Your task to perform on an android device: Open Youtube and go to the subscriptions tab Image 0: 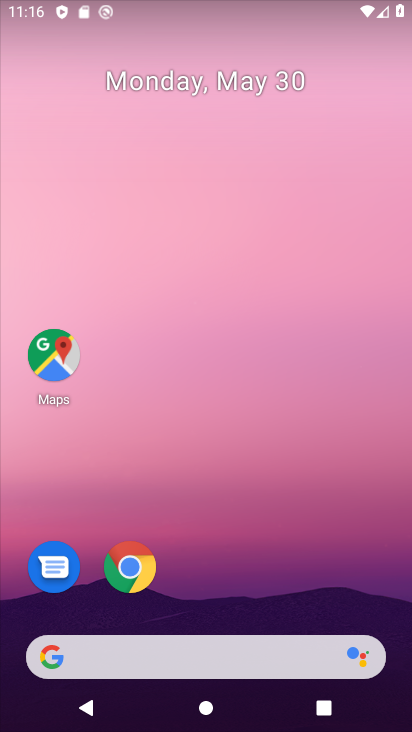
Step 0: drag from (275, 577) to (241, 58)
Your task to perform on an android device: Open Youtube and go to the subscriptions tab Image 1: 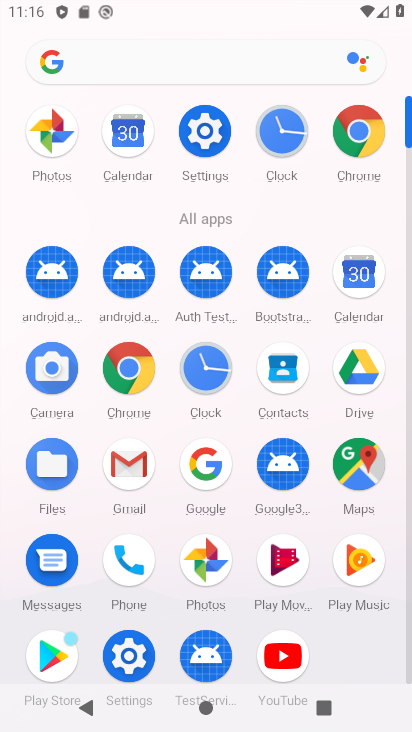
Step 1: click (274, 658)
Your task to perform on an android device: Open Youtube and go to the subscriptions tab Image 2: 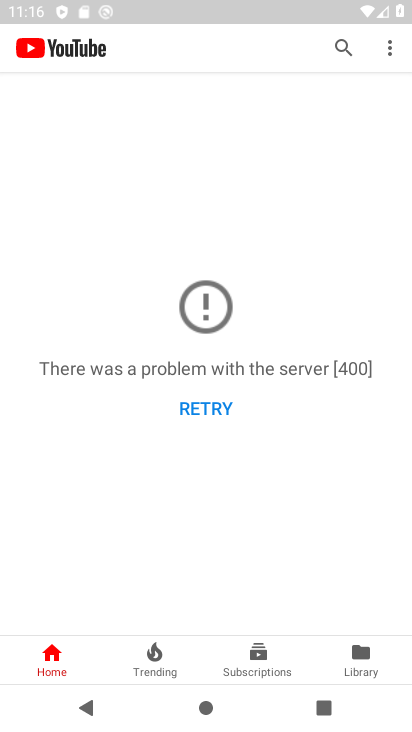
Step 2: click (248, 654)
Your task to perform on an android device: Open Youtube and go to the subscriptions tab Image 3: 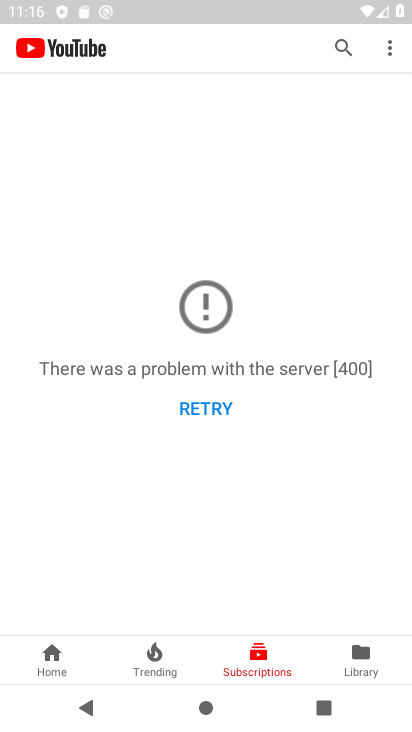
Step 3: task complete